Your task to perform on an android device: turn vacation reply on in the gmail app Image 0: 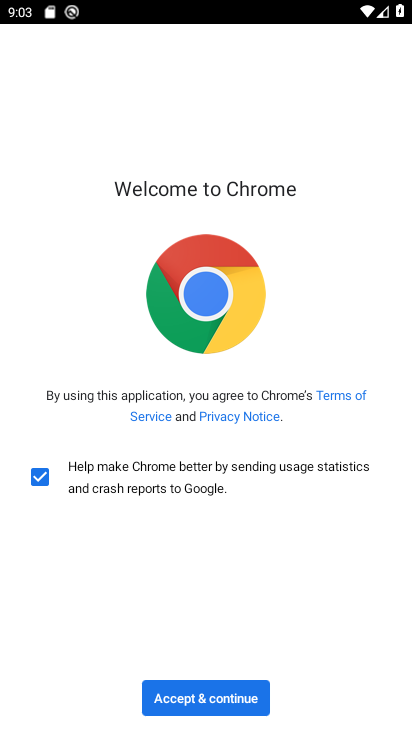
Step 0: click (394, 414)
Your task to perform on an android device: turn vacation reply on in the gmail app Image 1: 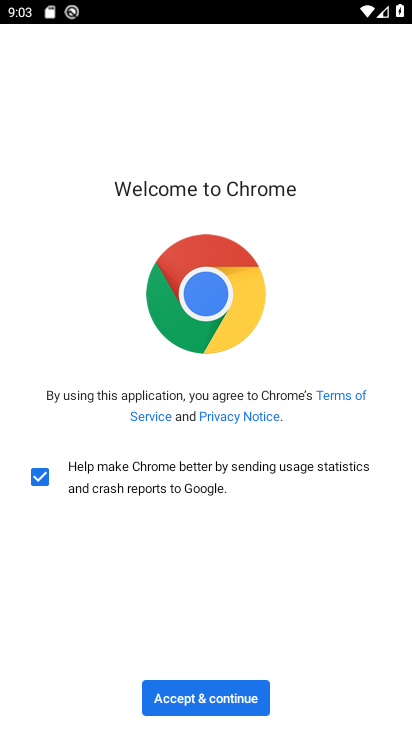
Step 1: press home button
Your task to perform on an android device: turn vacation reply on in the gmail app Image 2: 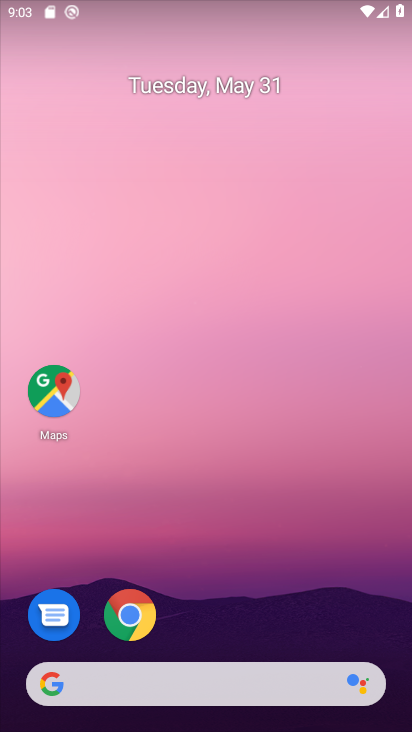
Step 2: drag from (185, 648) to (241, 128)
Your task to perform on an android device: turn vacation reply on in the gmail app Image 3: 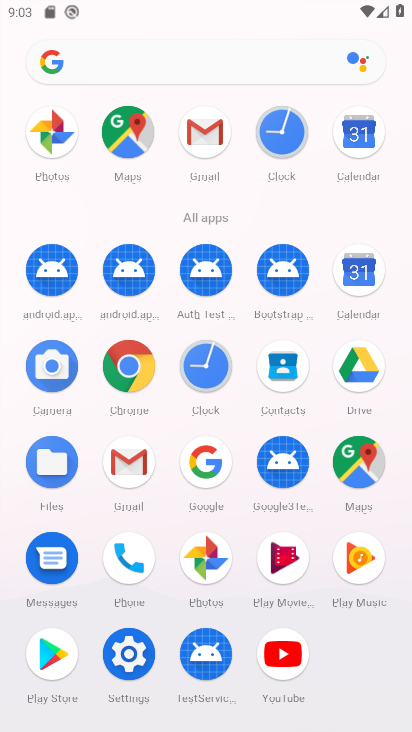
Step 3: click (124, 467)
Your task to perform on an android device: turn vacation reply on in the gmail app Image 4: 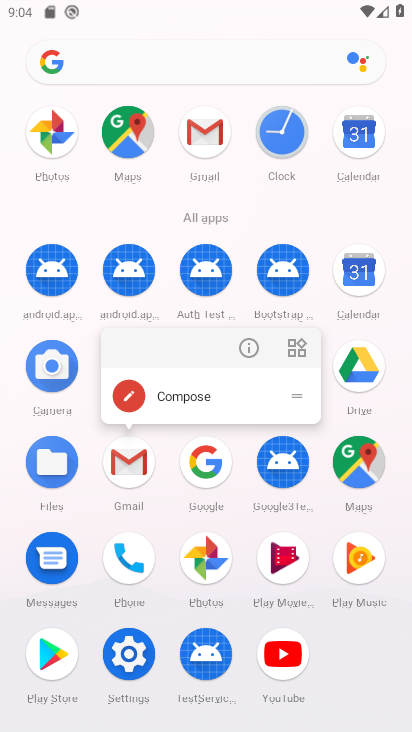
Step 4: click (125, 449)
Your task to perform on an android device: turn vacation reply on in the gmail app Image 5: 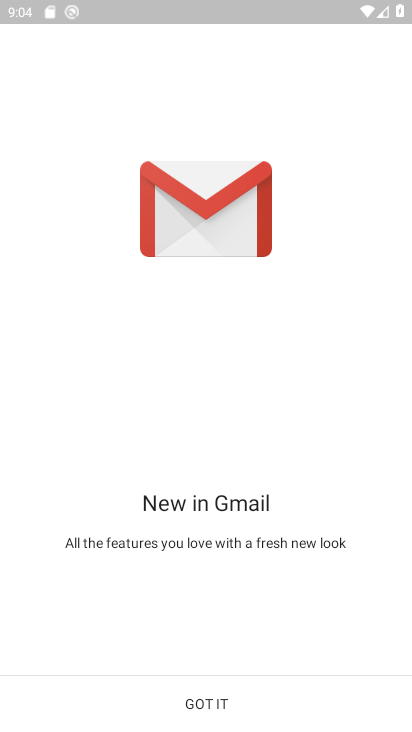
Step 5: click (240, 717)
Your task to perform on an android device: turn vacation reply on in the gmail app Image 6: 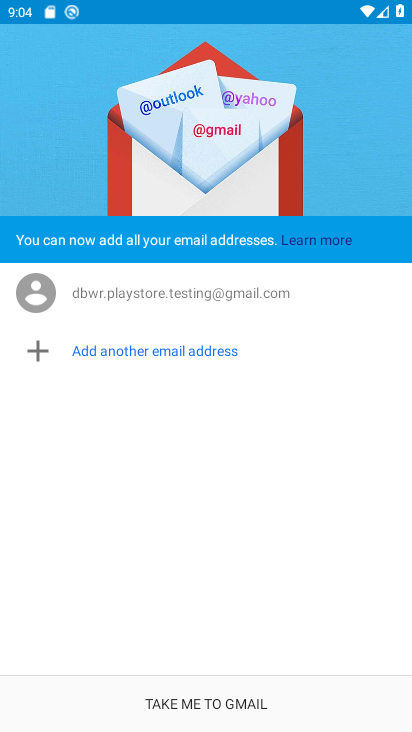
Step 6: click (247, 689)
Your task to perform on an android device: turn vacation reply on in the gmail app Image 7: 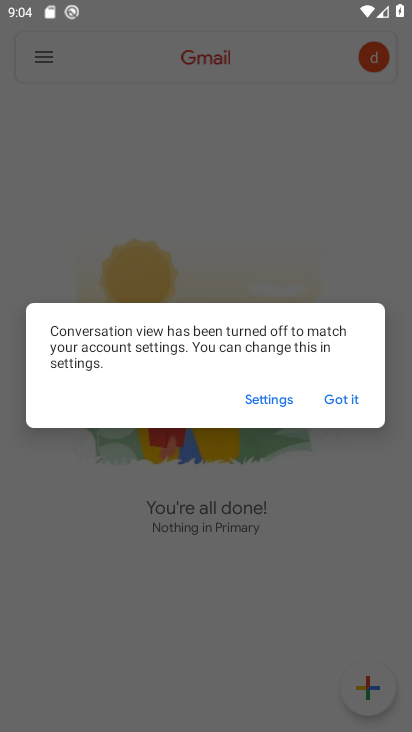
Step 7: click (352, 399)
Your task to perform on an android device: turn vacation reply on in the gmail app Image 8: 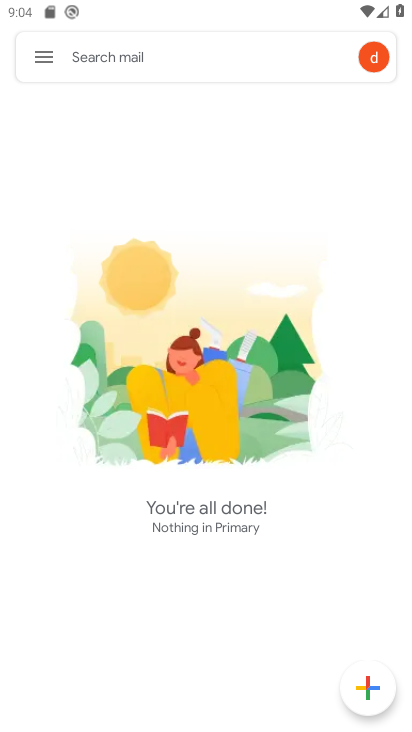
Step 8: click (42, 42)
Your task to perform on an android device: turn vacation reply on in the gmail app Image 9: 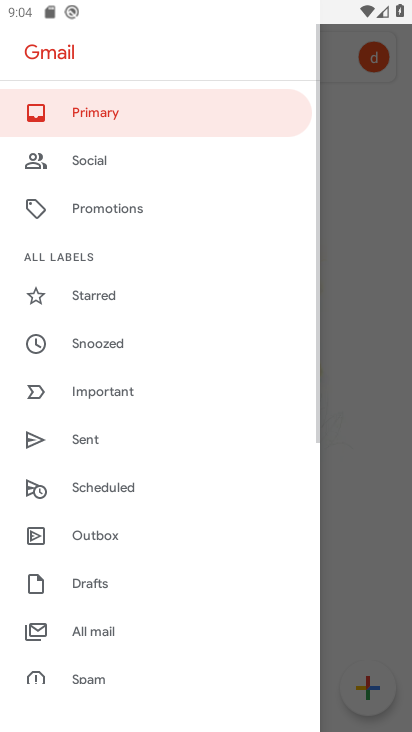
Step 9: drag from (86, 554) to (169, 133)
Your task to perform on an android device: turn vacation reply on in the gmail app Image 10: 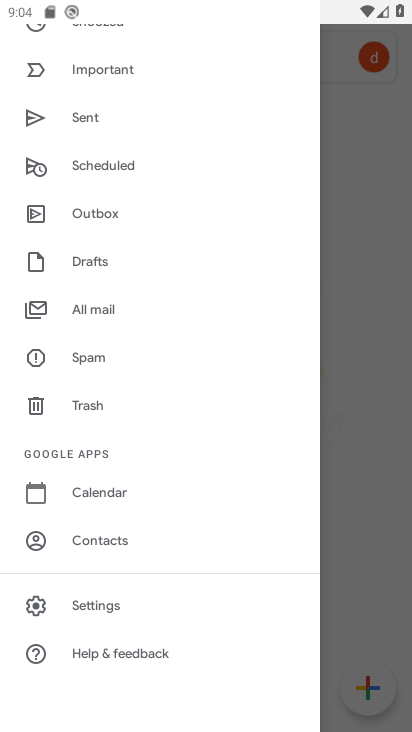
Step 10: click (117, 601)
Your task to perform on an android device: turn vacation reply on in the gmail app Image 11: 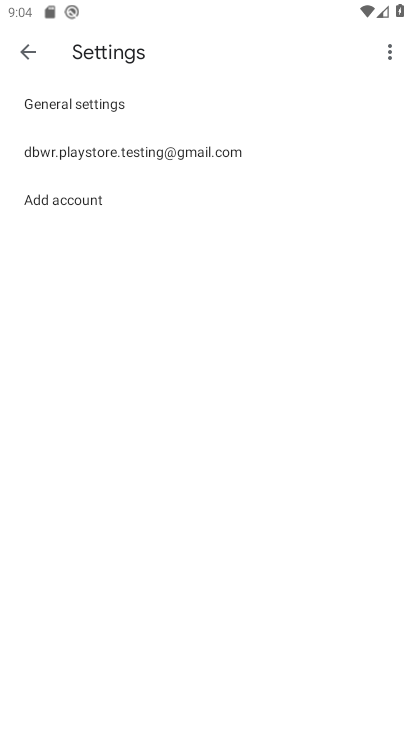
Step 11: click (225, 143)
Your task to perform on an android device: turn vacation reply on in the gmail app Image 12: 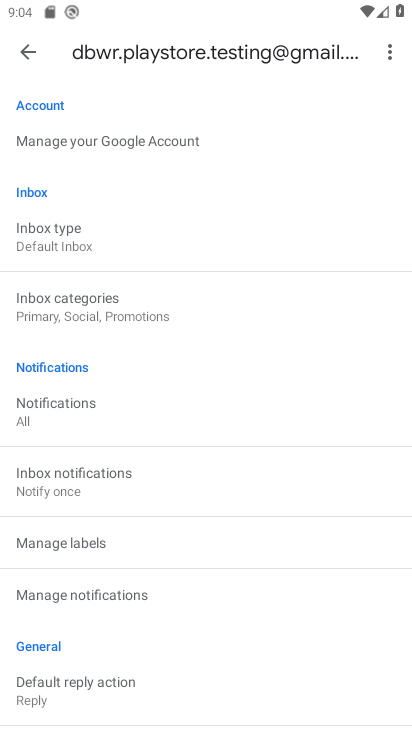
Step 12: drag from (183, 614) to (249, 250)
Your task to perform on an android device: turn vacation reply on in the gmail app Image 13: 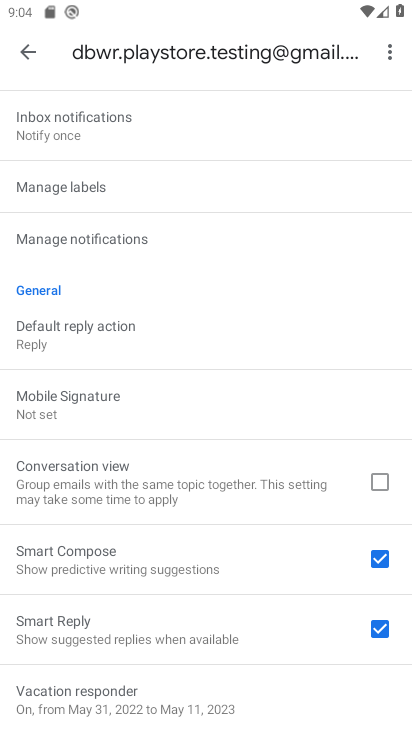
Step 13: drag from (224, 620) to (228, 292)
Your task to perform on an android device: turn vacation reply on in the gmail app Image 14: 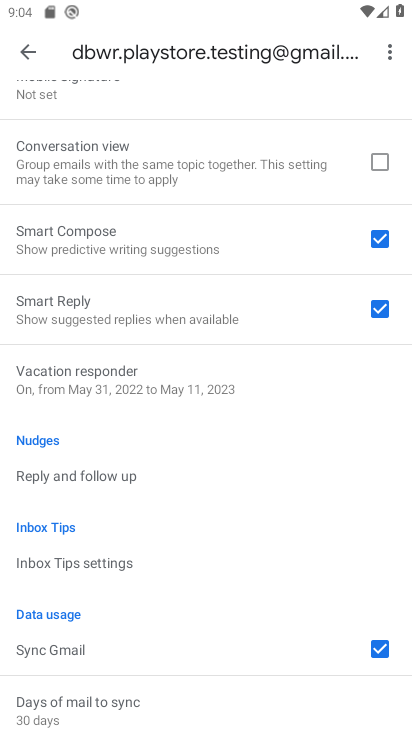
Step 14: click (197, 376)
Your task to perform on an android device: turn vacation reply on in the gmail app Image 15: 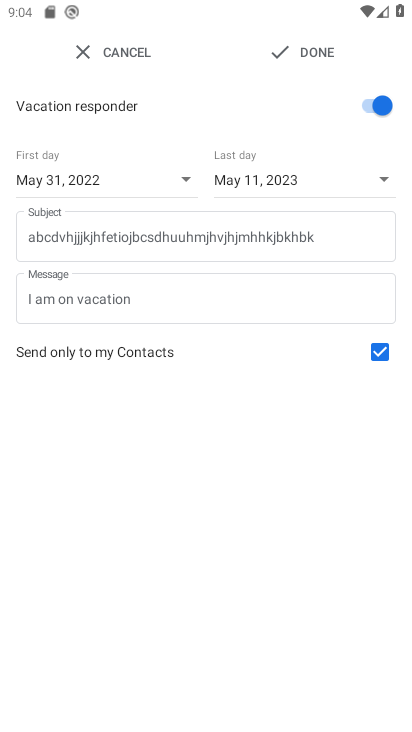
Step 15: task complete